Your task to perform on an android device: toggle data saver in the chrome app Image 0: 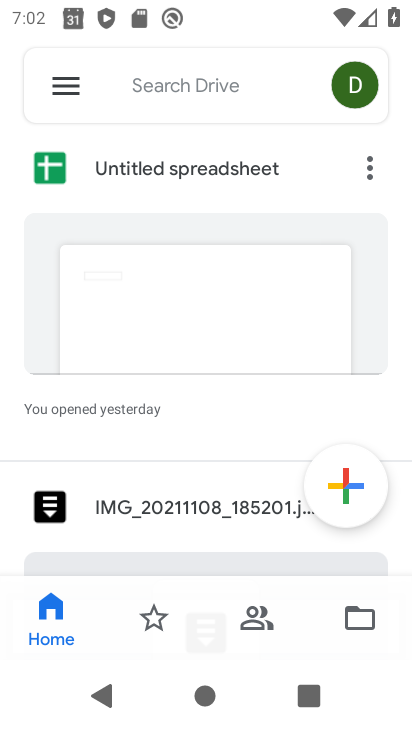
Step 0: press home button
Your task to perform on an android device: toggle data saver in the chrome app Image 1: 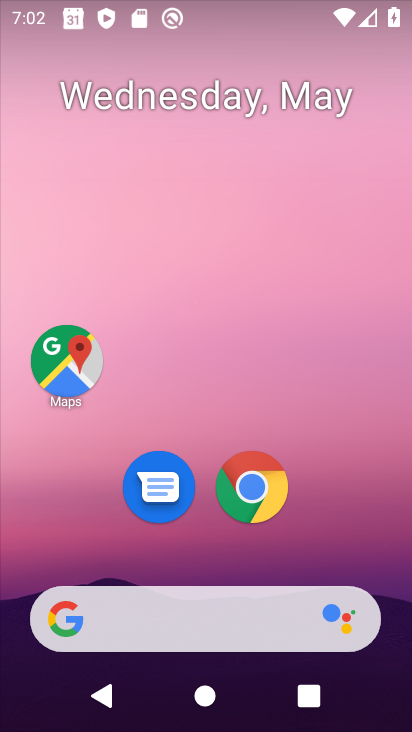
Step 1: click (240, 509)
Your task to perform on an android device: toggle data saver in the chrome app Image 2: 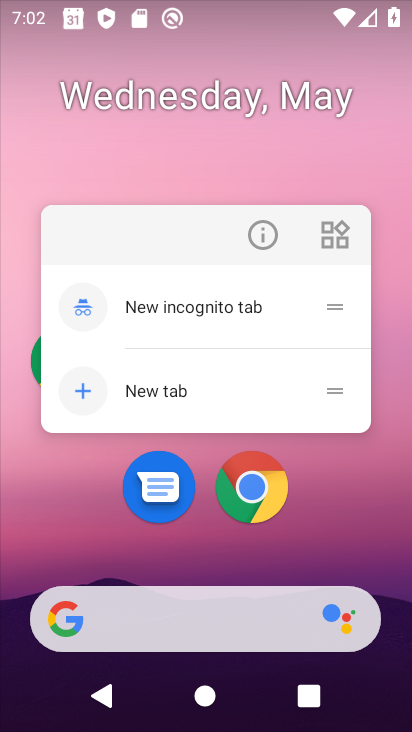
Step 2: click (240, 509)
Your task to perform on an android device: toggle data saver in the chrome app Image 3: 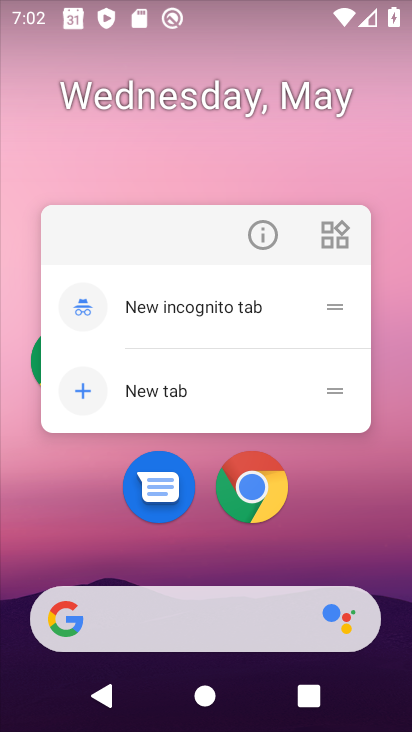
Step 3: click (250, 495)
Your task to perform on an android device: toggle data saver in the chrome app Image 4: 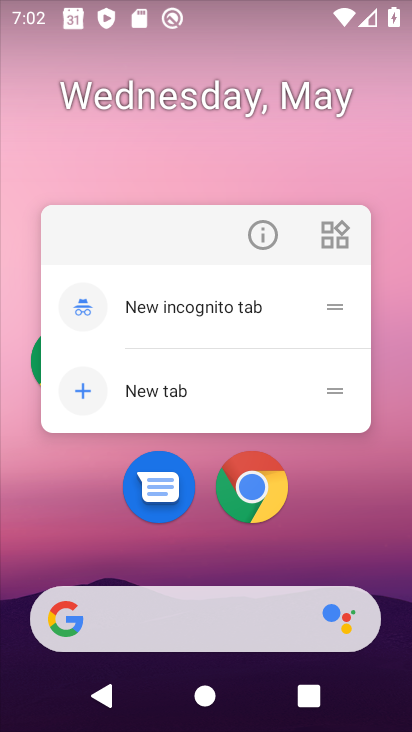
Step 4: click (250, 495)
Your task to perform on an android device: toggle data saver in the chrome app Image 5: 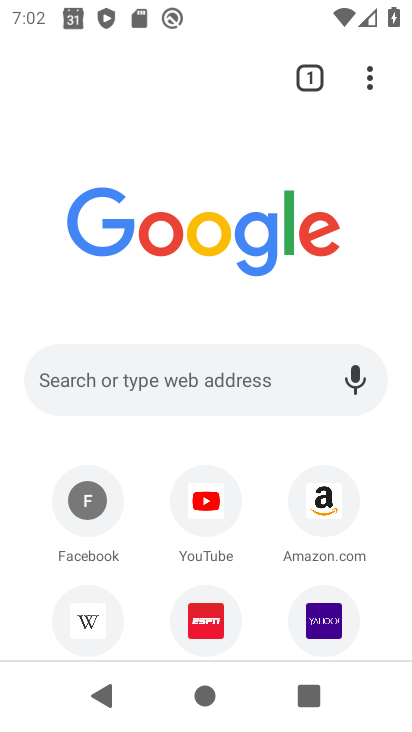
Step 5: drag from (373, 94) to (164, 551)
Your task to perform on an android device: toggle data saver in the chrome app Image 6: 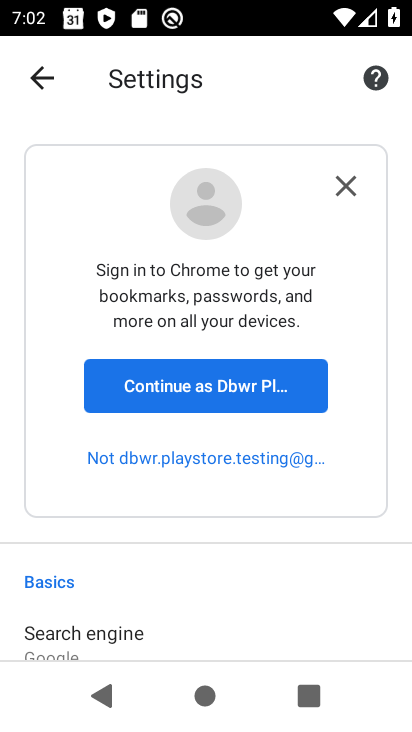
Step 6: drag from (241, 576) to (349, 273)
Your task to perform on an android device: toggle data saver in the chrome app Image 7: 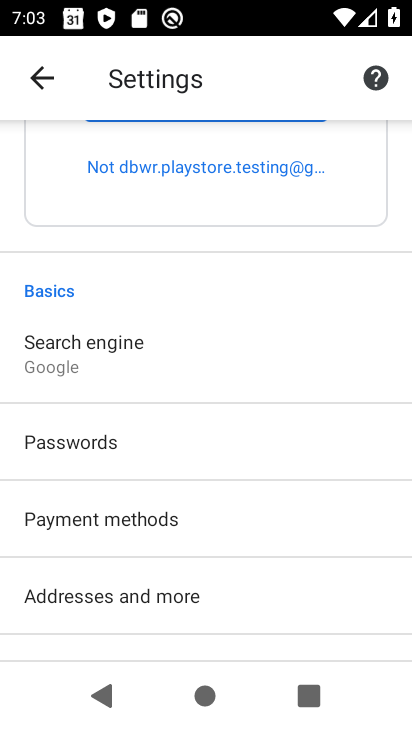
Step 7: drag from (186, 508) to (210, 276)
Your task to perform on an android device: toggle data saver in the chrome app Image 8: 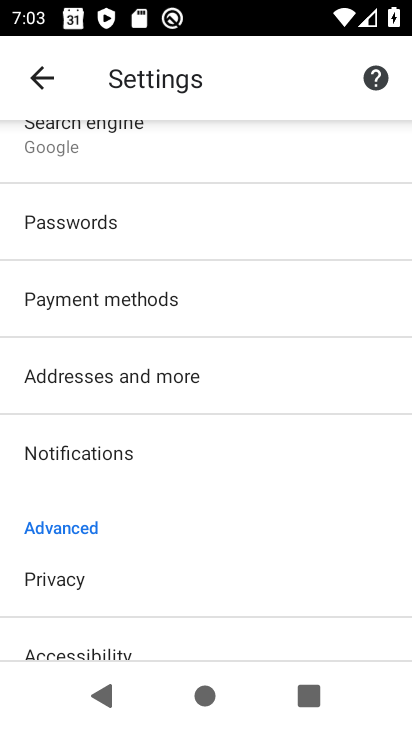
Step 8: drag from (175, 514) to (195, 313)
Your task to perform on an android device: toggle data saver in the chrome app Image 9: 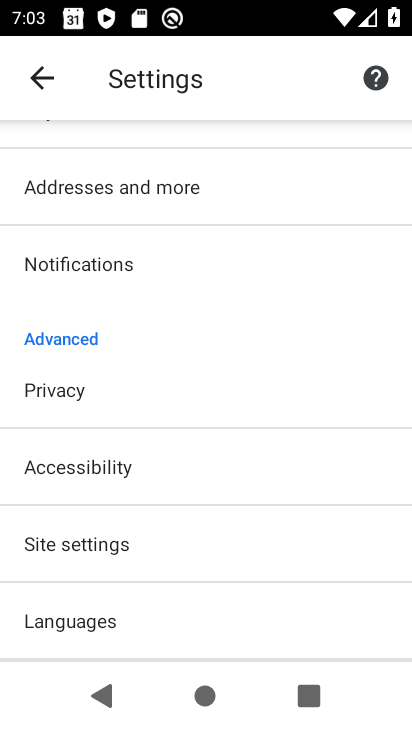
Step 9: drag from (169, 568) to (246, 341)
Your task to perform on an android device: toggle data saver in the chrome app Image 10: 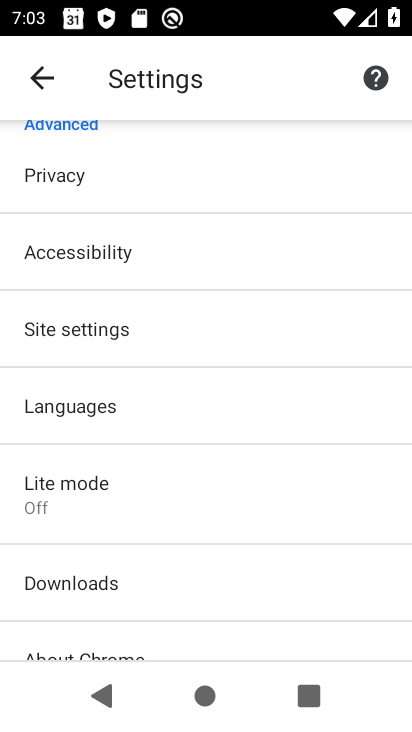
Step 10: click (144, 506)
Your task to perform on an android device: toggle data saver in the chrome app Image 11: 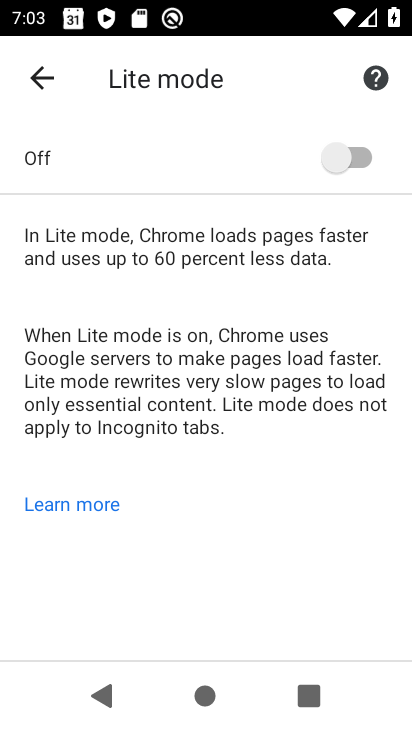
Step 11: click (331, 187)
Your task to perform on an android device: toggle data saver in the chrome app Image 12: 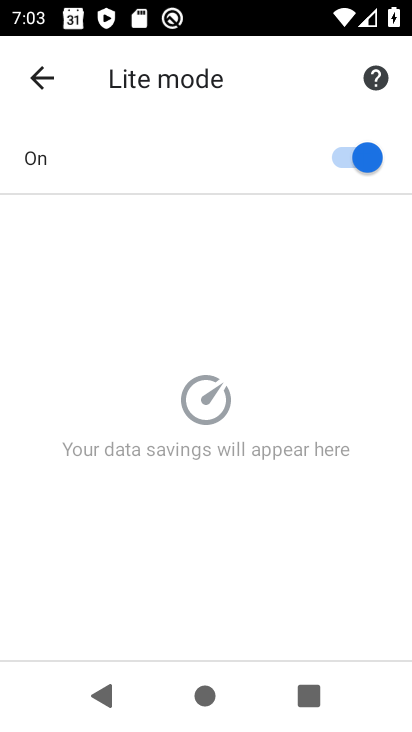
Step 12: task complete